Your task to perform on an android device: uninstall "Etsy: Buy & Sell Unique Items" Image 0: 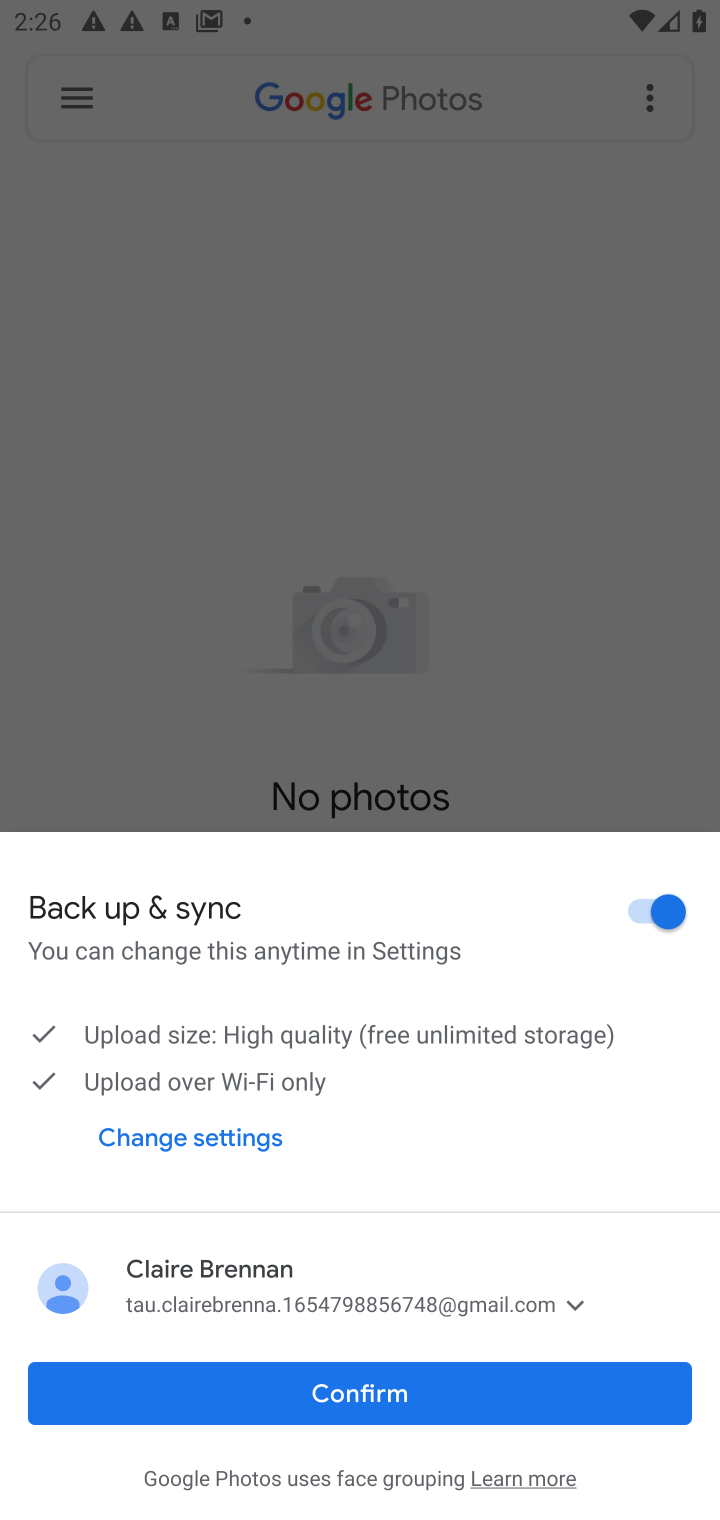
Step 0: press home button
Your task to perform on an android device: uninstall "Etsy: Buy & Sell Unique Items" Image 1: 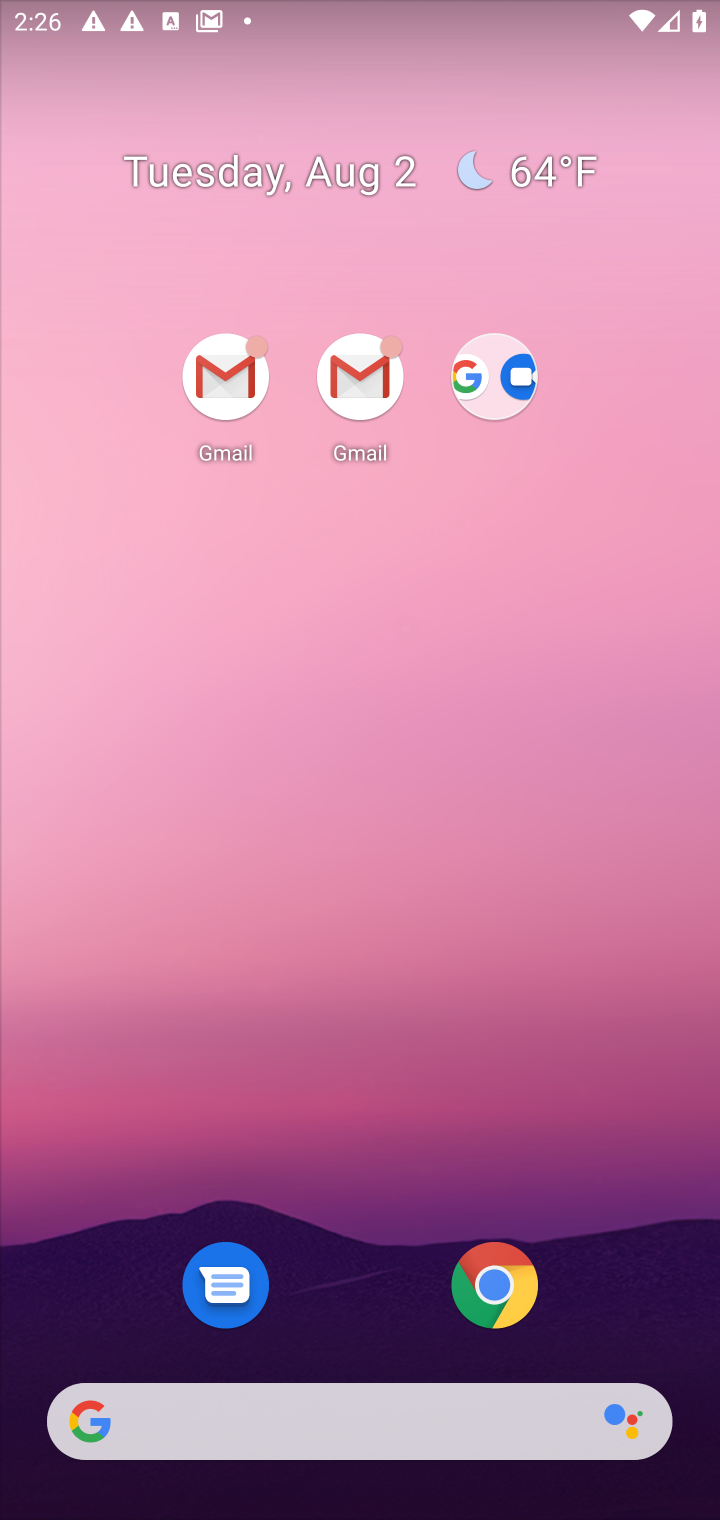
Step 1: drag from (632, 1274) to (591, 133)
Your task to perform on an android device: uninstall "Etsy: Buy & Sell Unique Items" Image 2: 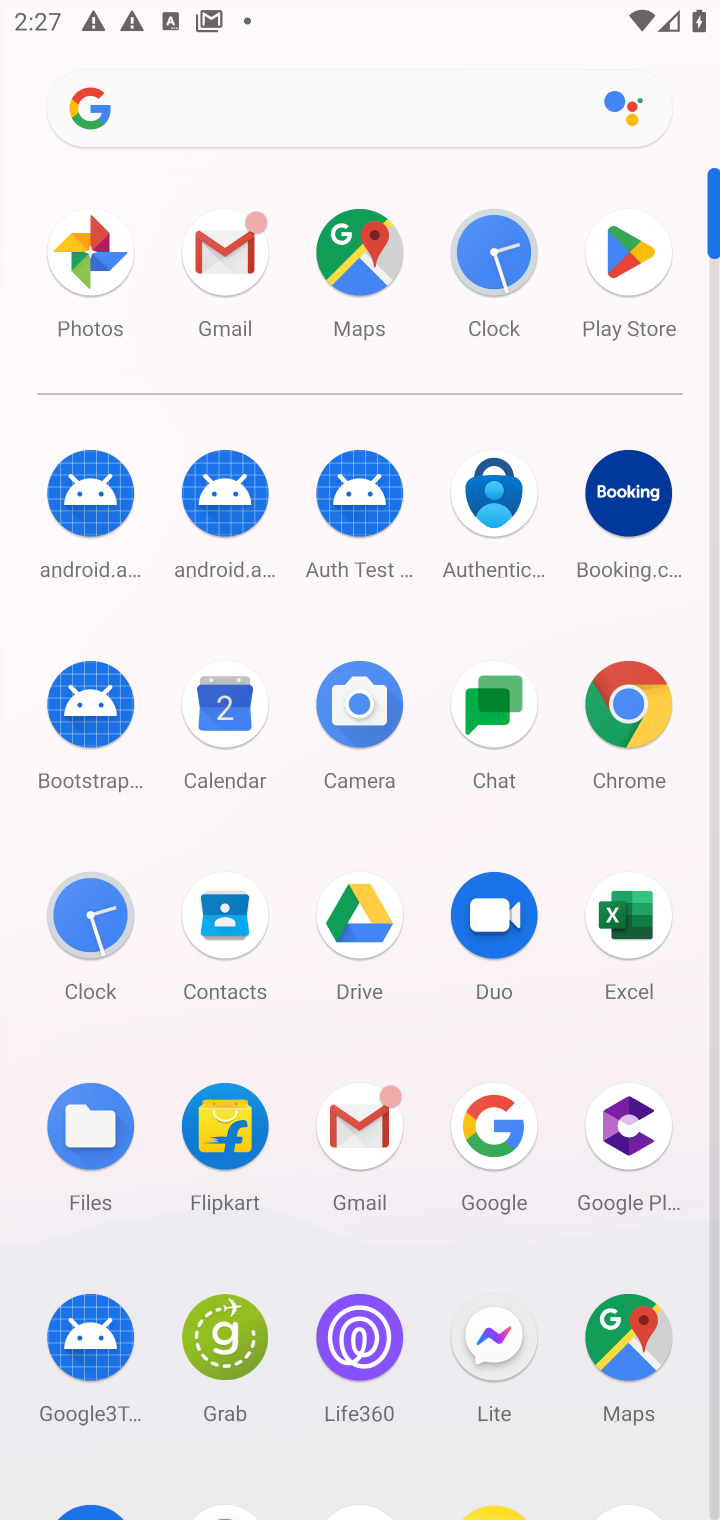
Step 2: drag from (272, 1248) to (301, 212)
Your task to perform on an android device: uninstall "Etsy: Buy & Sell Unique Items" Image 3: 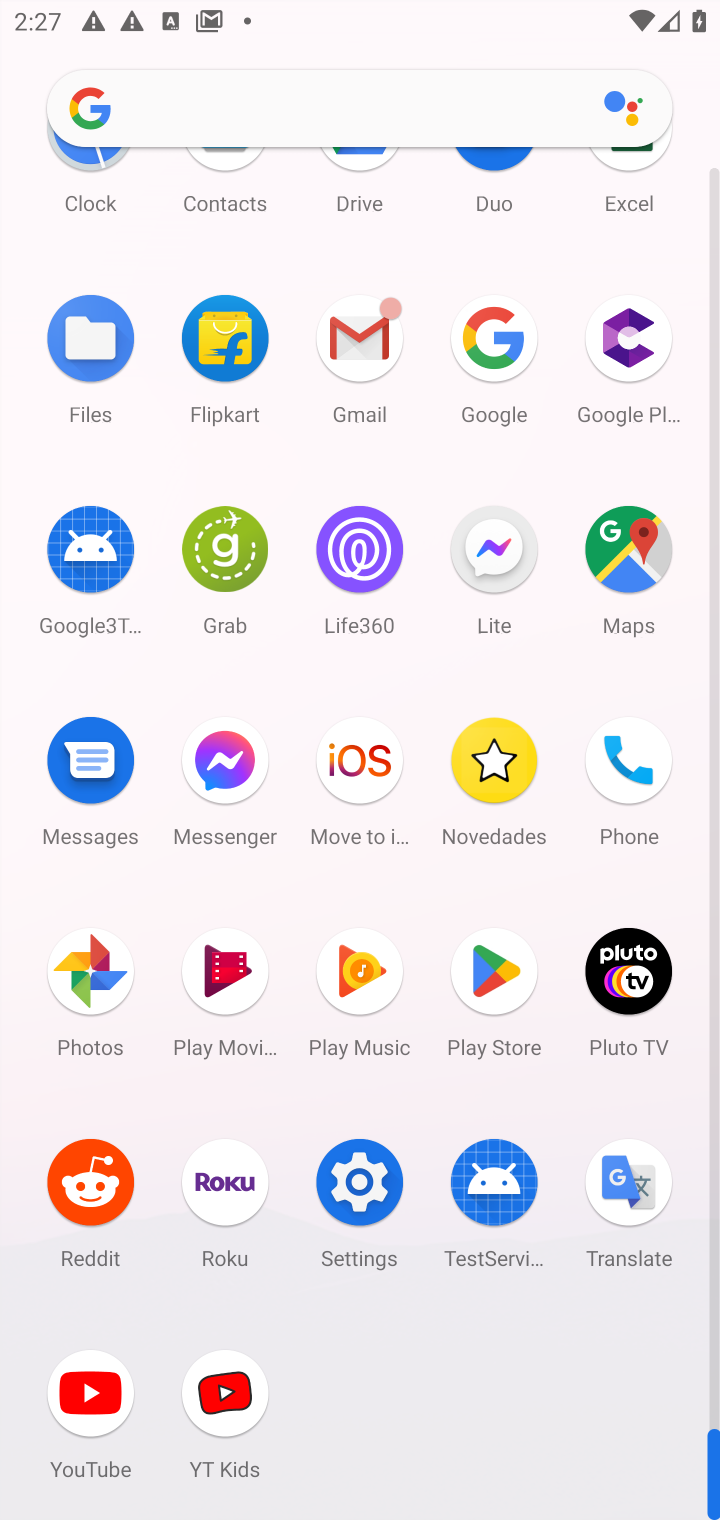
Step 3: click (484, 983)
Your task to perform on an android device: uninstall "Etsy: Buy & Sell Unique Items" Image 4: 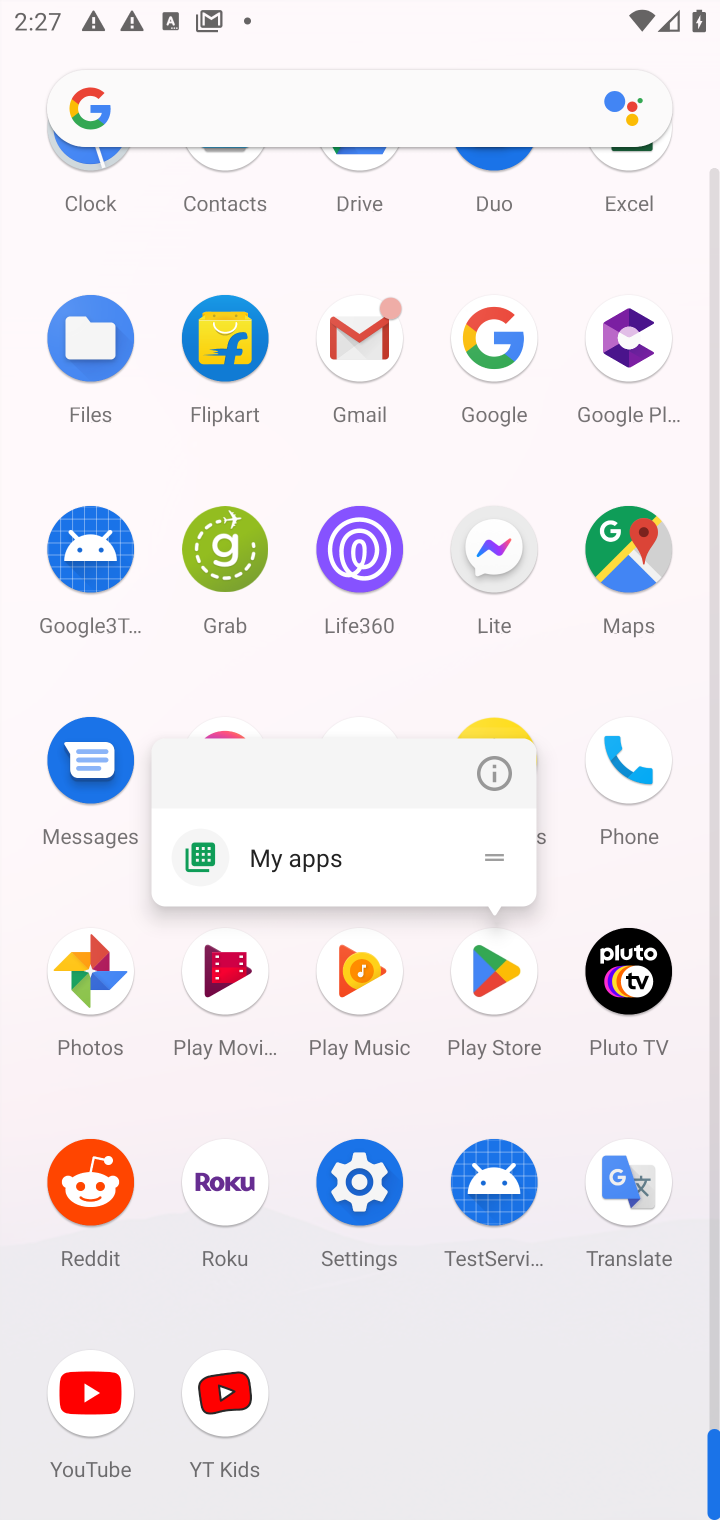
Step 4: click (486, 981)
Your task to perform on an android device: uninstall "Etsy: Buy & Sell Unique Items" Image 5: 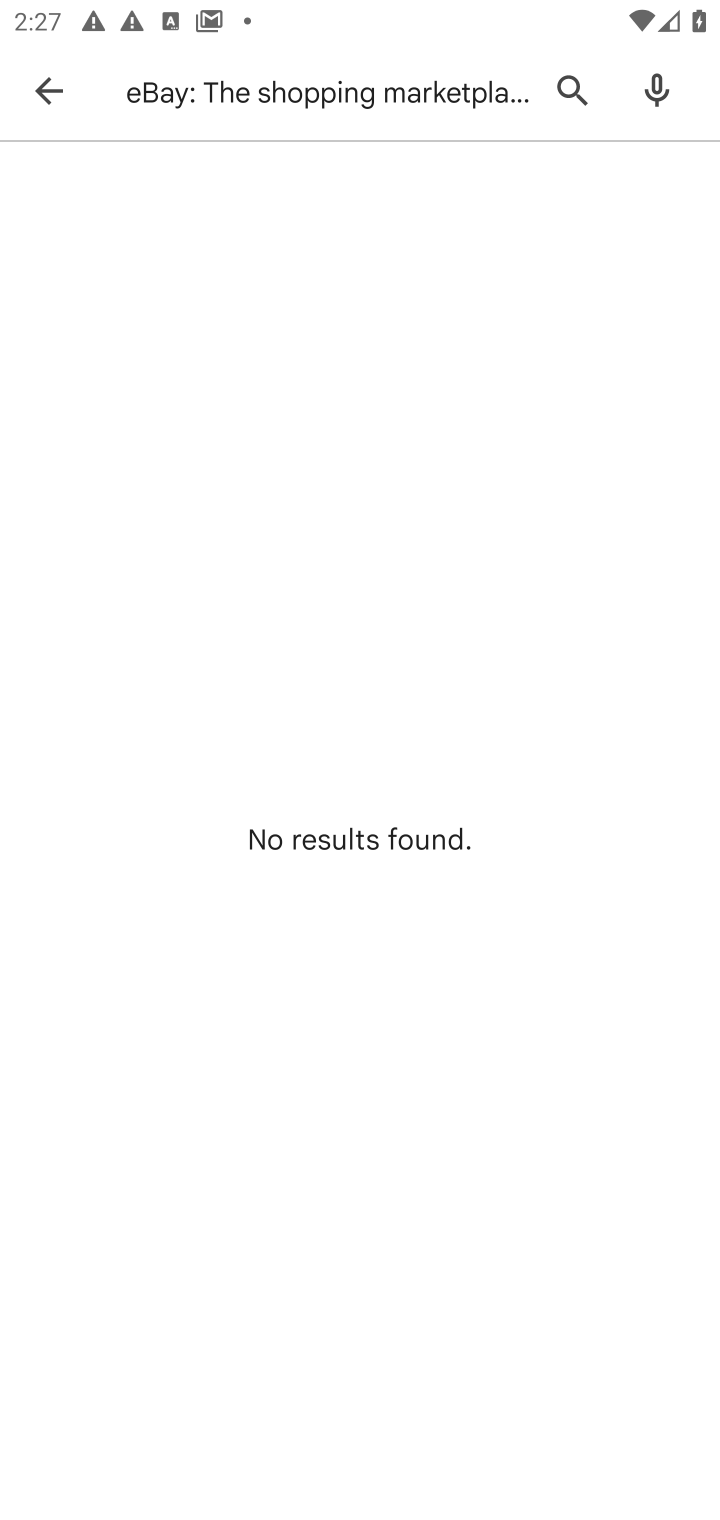
Step 5: click (474, 84)
Your task to perform on an android device: uninstall "Etsy: Buy & Sell Unique Items" Image 6: 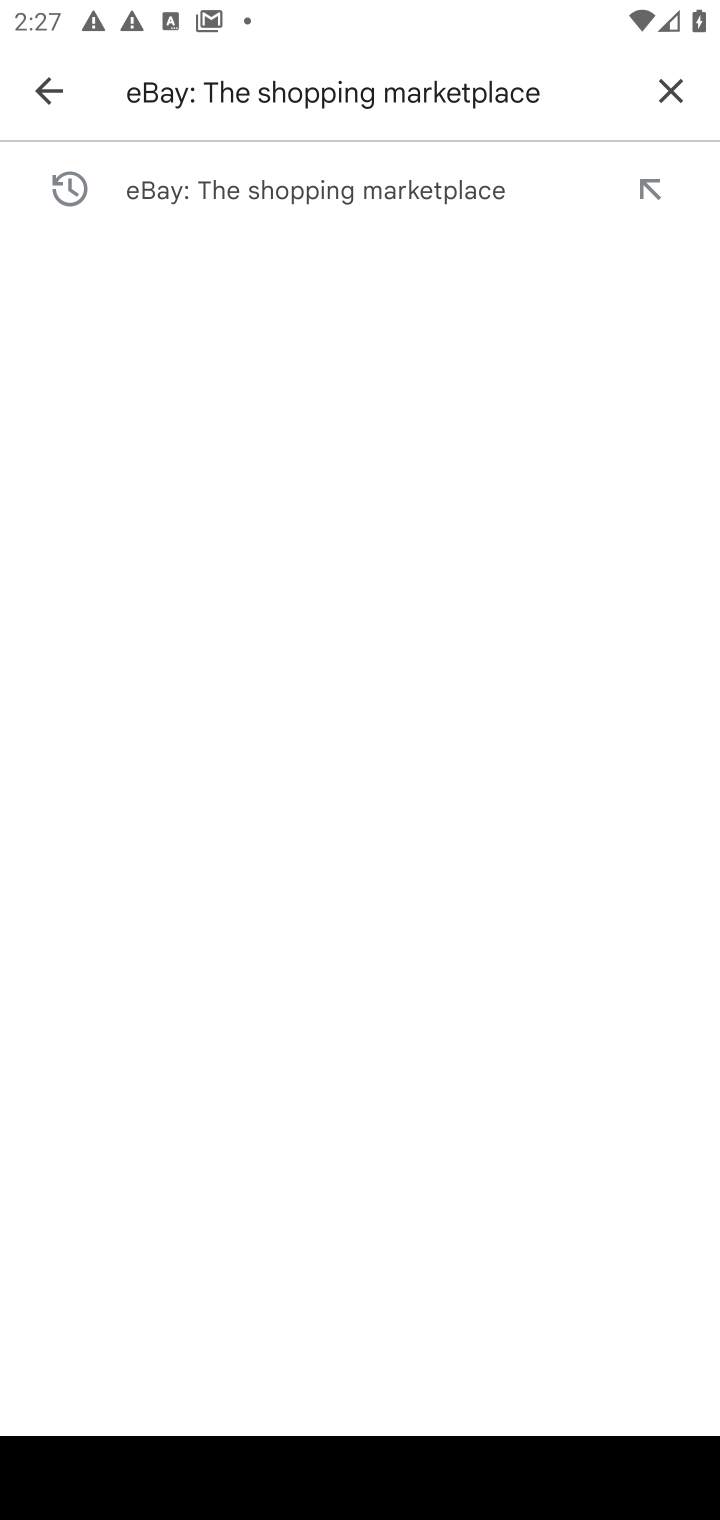
Step 6: click (679, 91)
Your task to perform on an android device: uninstall "Etsy: Buy & Sell Unique Items" Image 7: 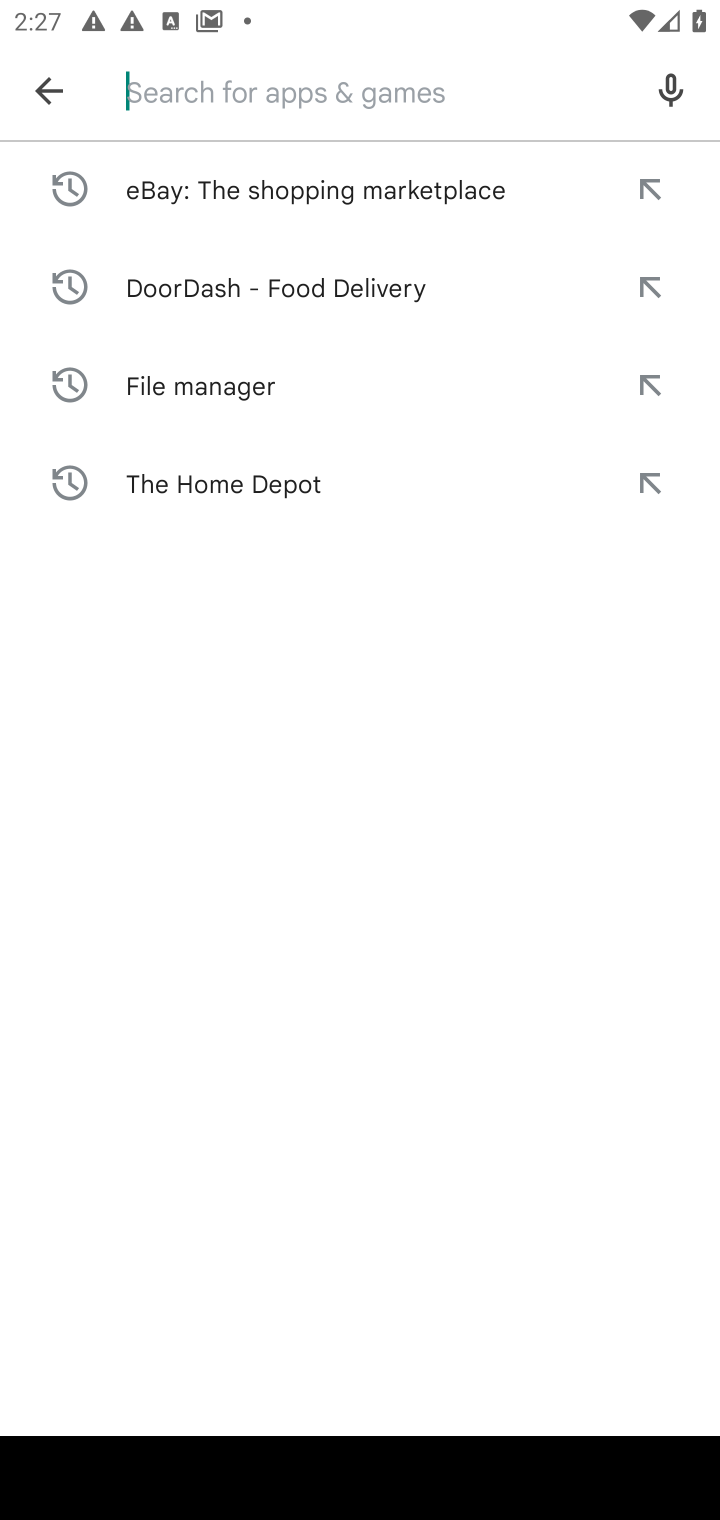
Step 7: type "Esty: Buy & Sell Unique Item"
Your task to perform on an android device: uninstall "Etsy: Buy & Sell Unique Items" Image 8: 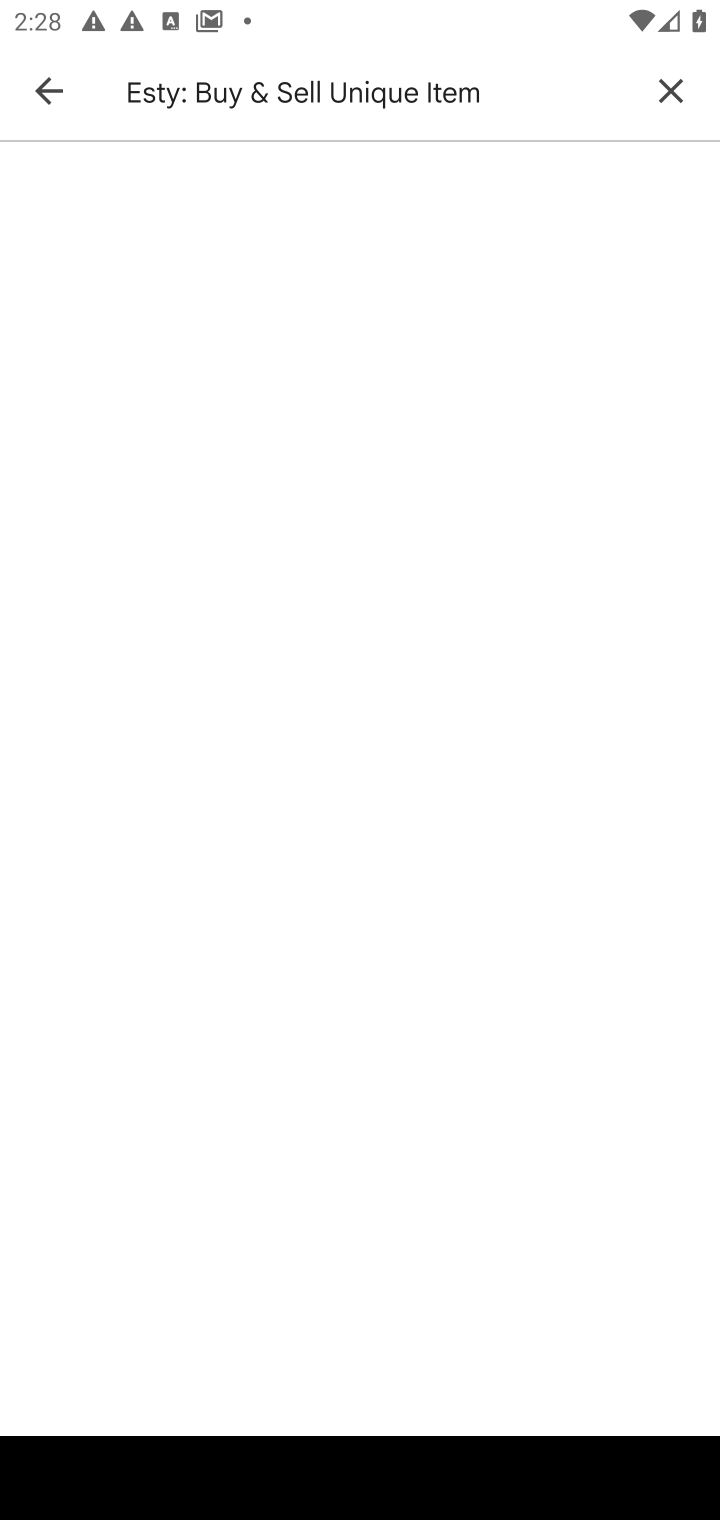
Step 8: press enter
Your task to perform on an android device: uninstall "Etsy: Buy & Sell Unique Items" Image 9: 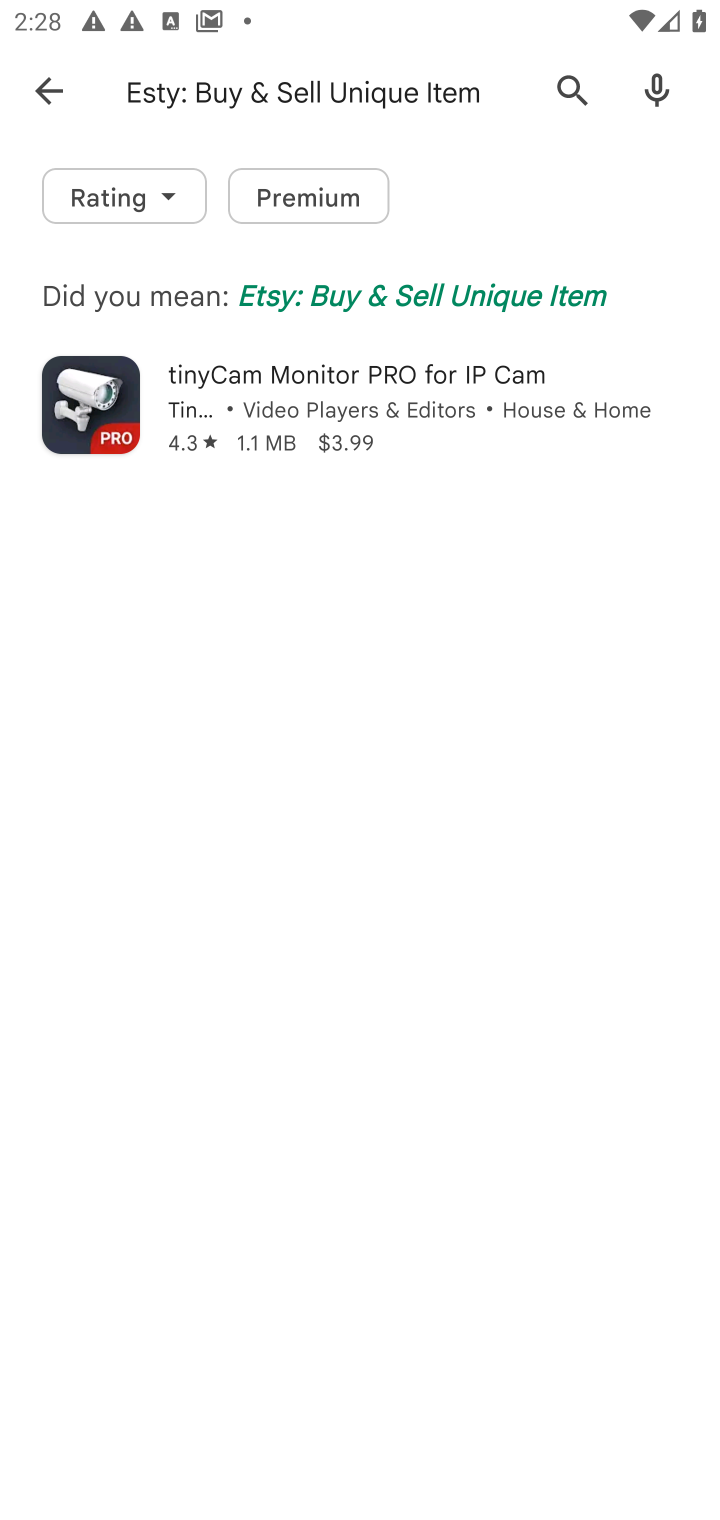
Step 9: task complete